Your task to perform on an android device: delete the emails in spam in the gmail app Image 0: 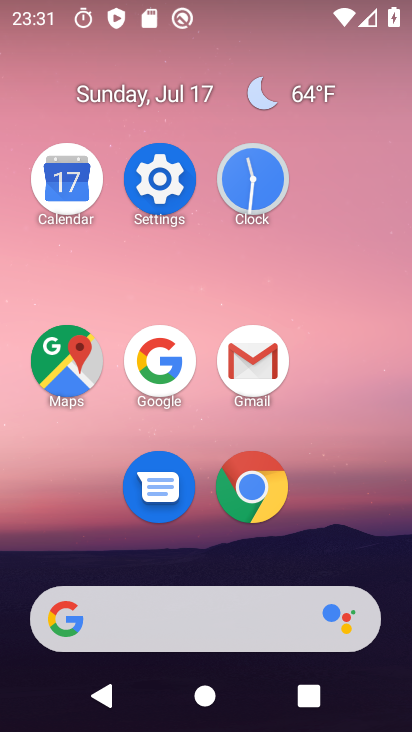
Step 0: click (246, 351)
Your task to perform on an android device: delete the emails in spam in the gmail app Image 1: 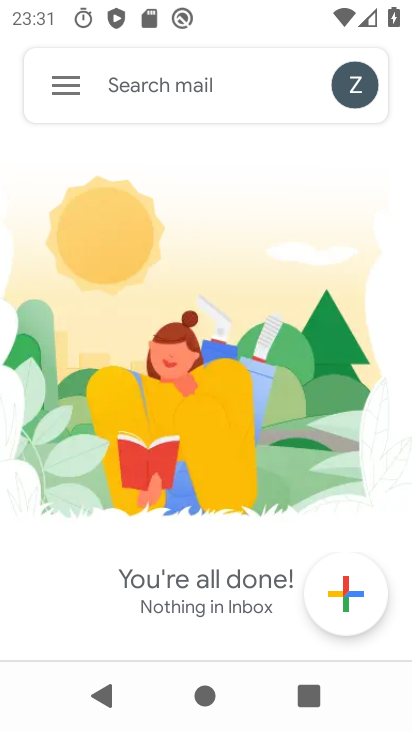
Step 1: click (64, 86)
Your task to perform on an android device: delete the emails in spam in the gmail app Image 2: 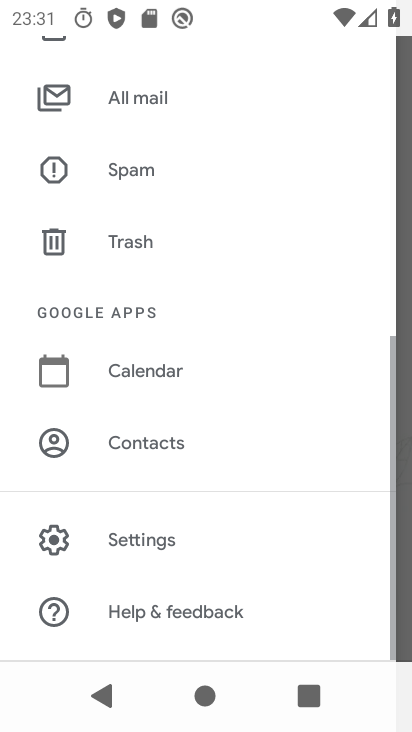
Step 2: click (152, 171)
Your task to perform on an android device: delete the emails in spam in the gmail app Image 3: 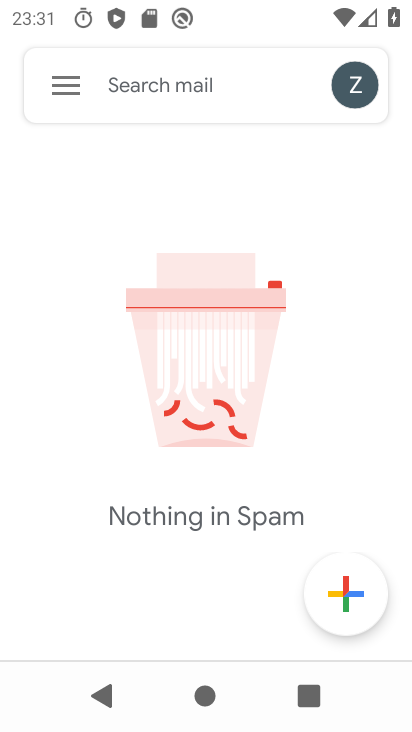
Step 3: task complete